Your task to perform on an android device: Open Android settings Image 0: 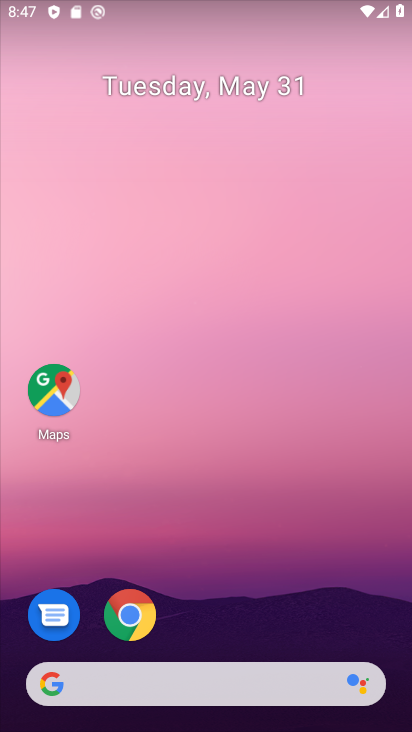
Step 0: drag from (239, 553) to (219, 124)
Your task to perform on an android device: Open Android settings Image 1: 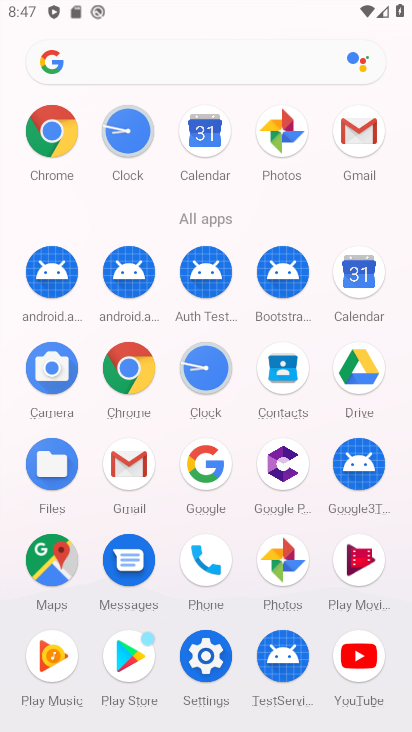
Step 1: click (202, 649)
Your task to perform on an android device: Open Android settings Image 2: 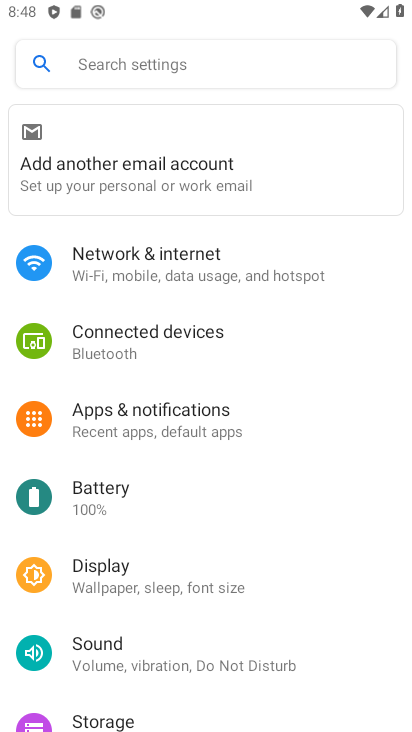
Step 2: task complete